Your task to perform on an android device: Open the Play Movies app and select the watchlist tab. Image 0: 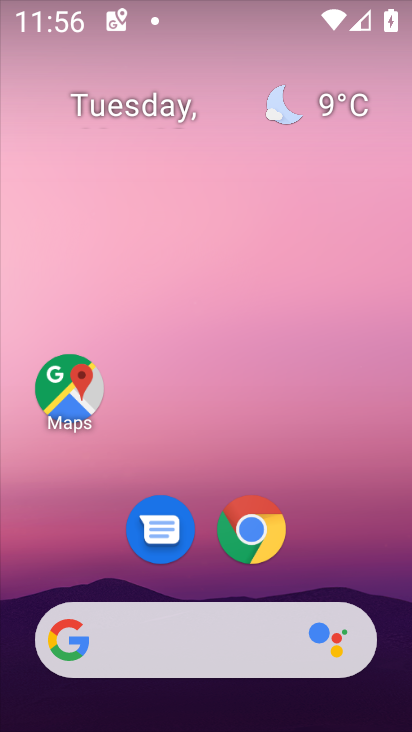
Step 0: drag from (356, 551) to (359, 219)
Your task to perform on an android device: Open the Play Movies app and select the watchlist tab. Image 1: 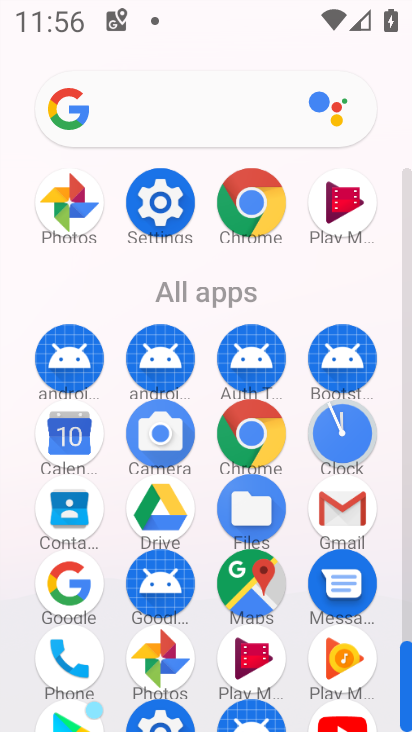
Step 1: click (258, 659)
Your task to perform on an android device: Open the Play Movies app and select the watchlist tab. Image 2: 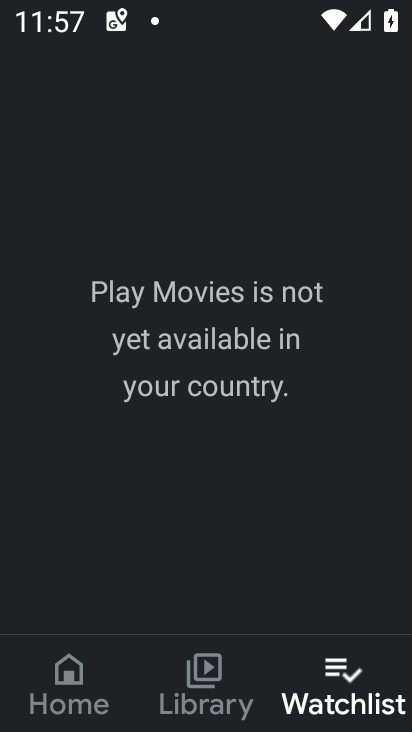
Step 2: task complete